Your task to perform on an android device: Open Yahoo.com Image 0: 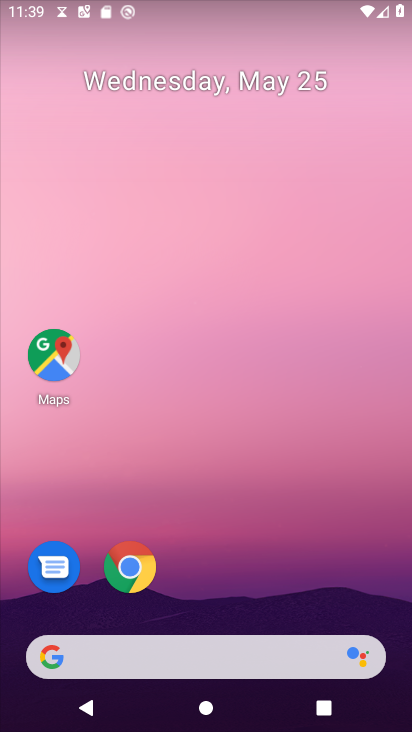
Step 0: click (141, 571)
Your task to perform on an android device: Open Yahoo.com Image 1: 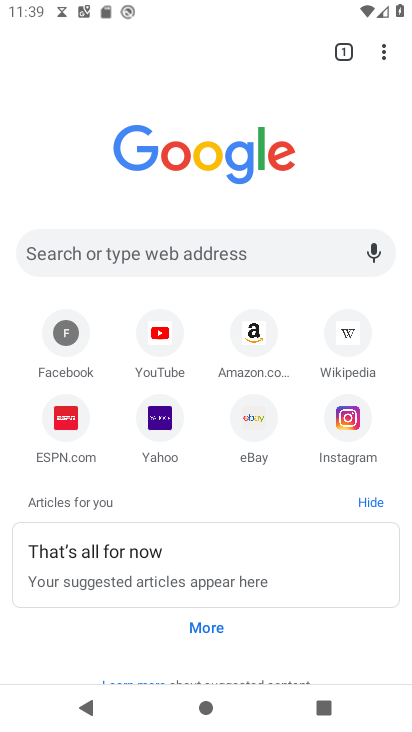
Step 1: click (132, 434)
Your task to perform on an android device: Open Yahoo.com Image 2: 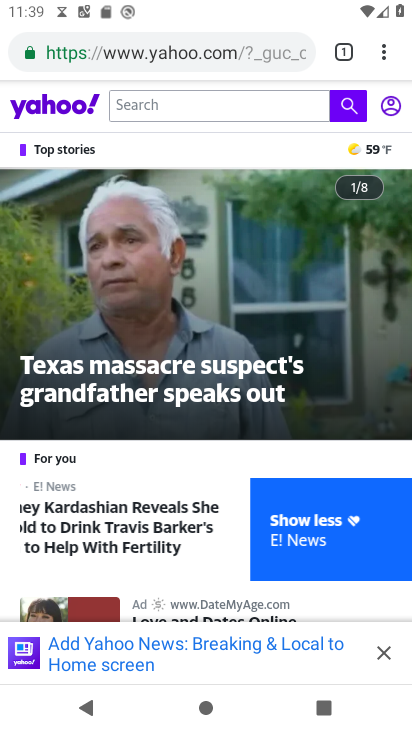
Step 2: task complete